Your task to perform on an android device: See recent photos Image 0: 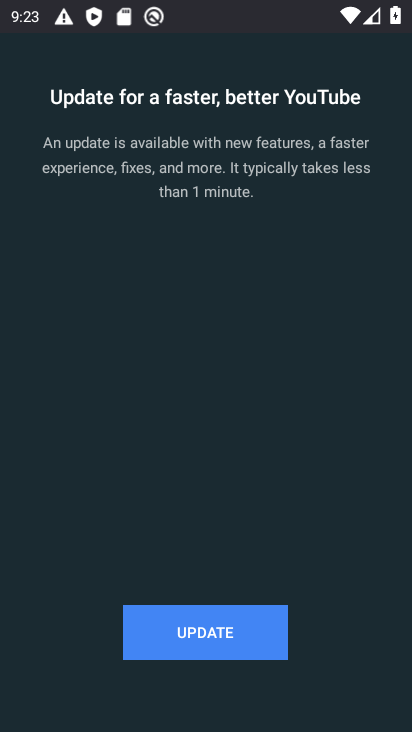
Step 0: press home button
Your task to perform on an android device: See recent photos Image 1: 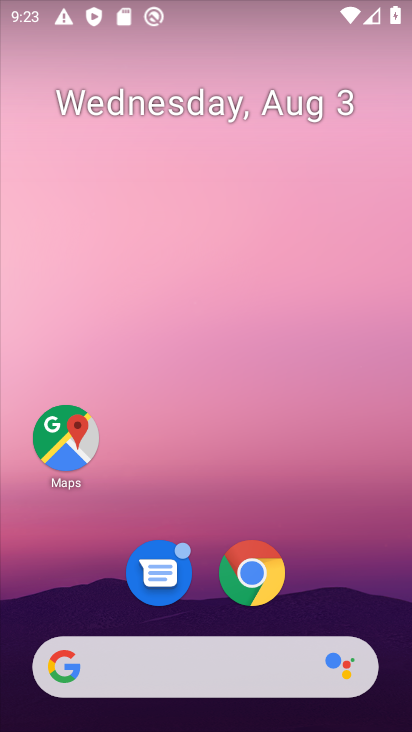
Step 1: drag from (128, 649) to (262, 2)
Your task to perform on an android device: See recent photos Image 2: 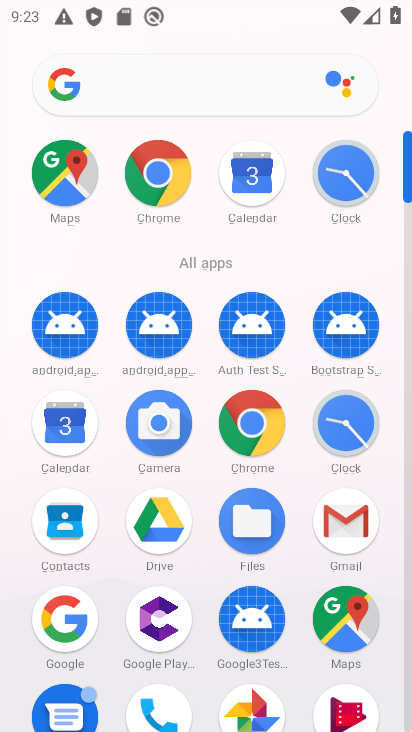
Step 2: click (256, 691)
Your task to perform on an android device: See recent photos Image 3: 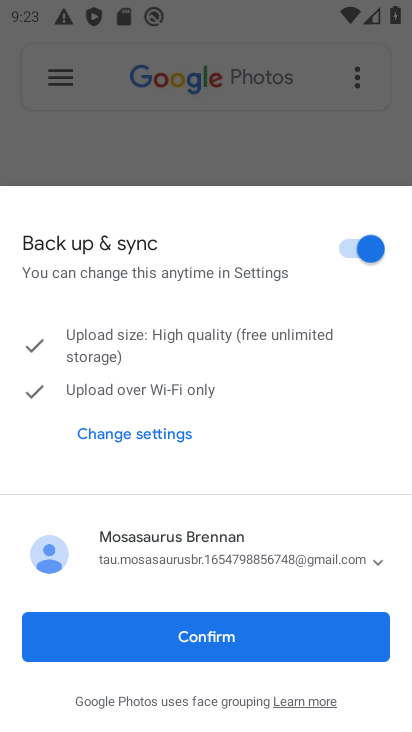
Step 3: click (235, 646)
Your task to perform on an android device: See recent photos Image 4: 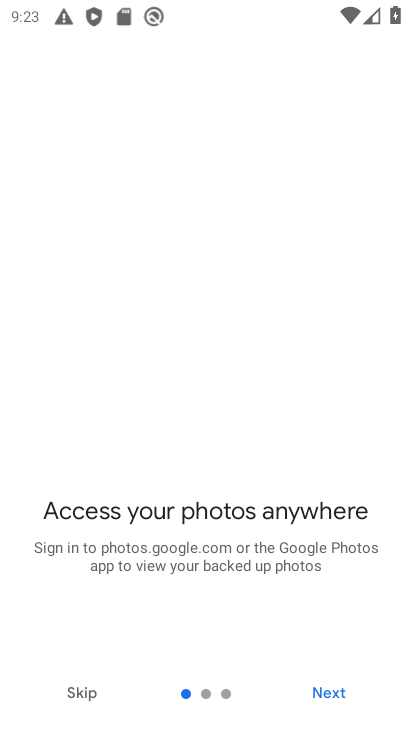
Step 4: click (88, 692)
Your task to perform on an android device: See recent photos Image 5: 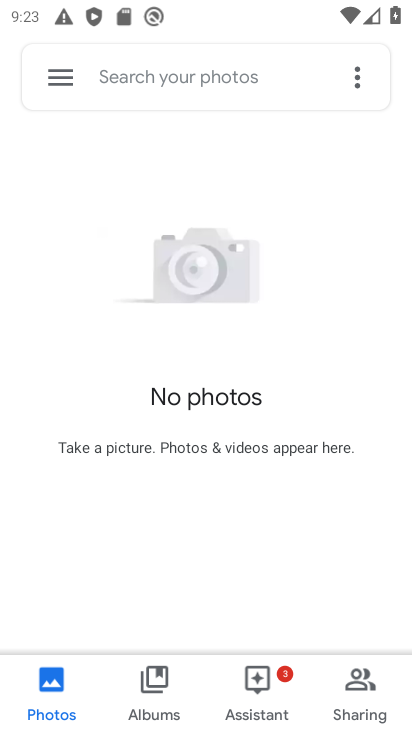
Step 5: task complete